Your task to perform on an android device: toggle show notifications on the lock screen Image 0: 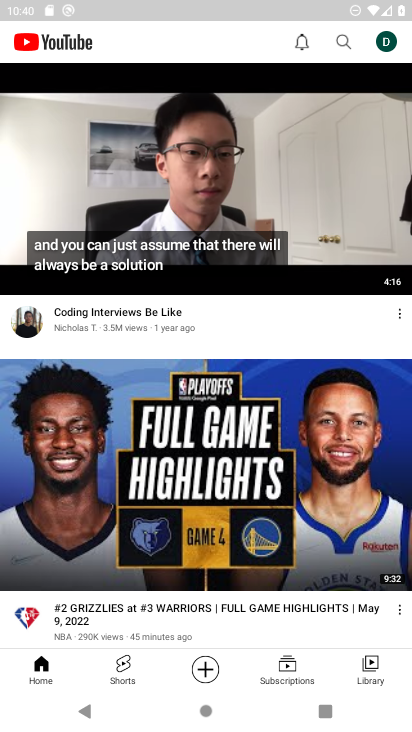
Step 0: press back button
Your task to perform on an android device: toggle show notifications on the lock screen Image 1: 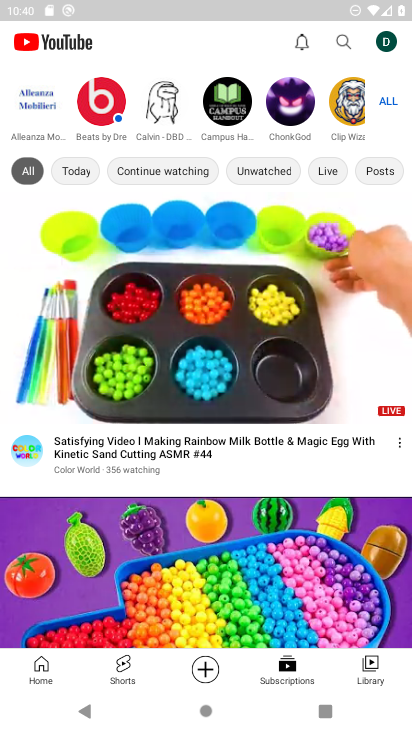
Step 1: press back button
Your task to perform on an android device: toggle show notifications on the lock screen Image 2: 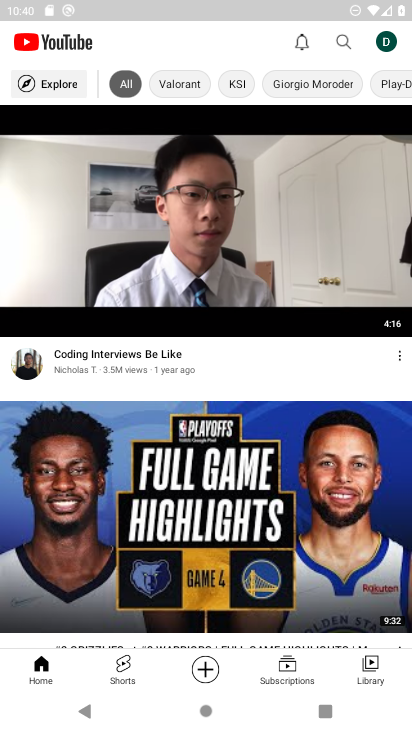
Step 2: click (210, 713)
Your task to perform on an android device: toggle show notifications on the lock screen Image 3: 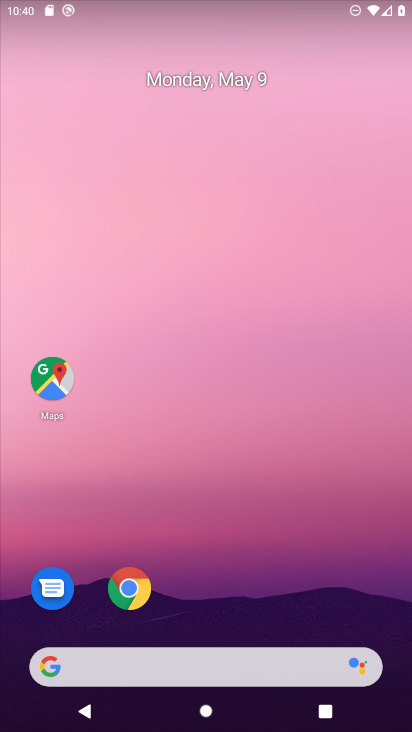
Step 3: drag from (262, 615) to (304, 199)
Your task to perform on an android device: toggle show notifications on the lock screen Image 4: 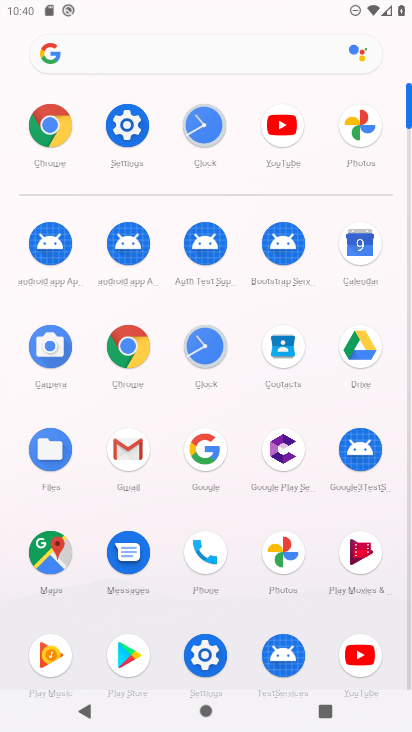
Step 4: click (135, 162)
Your task to perform on an android device: toggle show notifications on the lock screen Image 5: 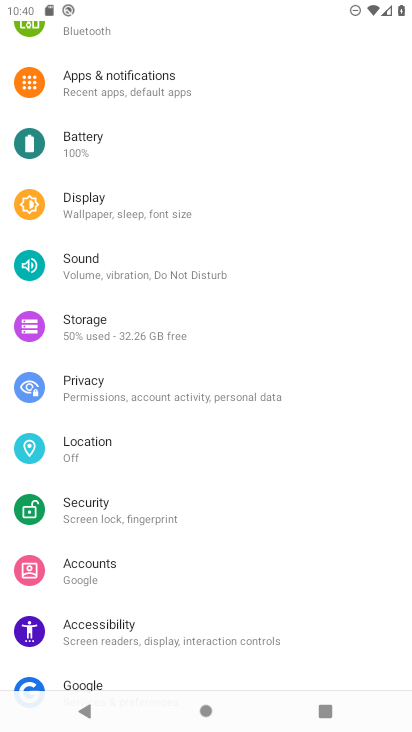
Step 5: drag from (180, 538) to (208, 274)
Your task to perform on an android device: toggle show notifications on the lock screen Image 6: 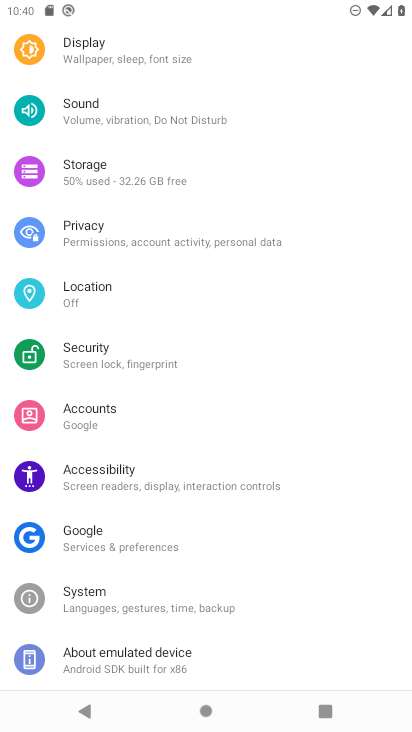
Step 6: drag from (191, 111) to (182, 635)
Your task to perform on an android device: toggle show notifications on the lock screen Image 7: 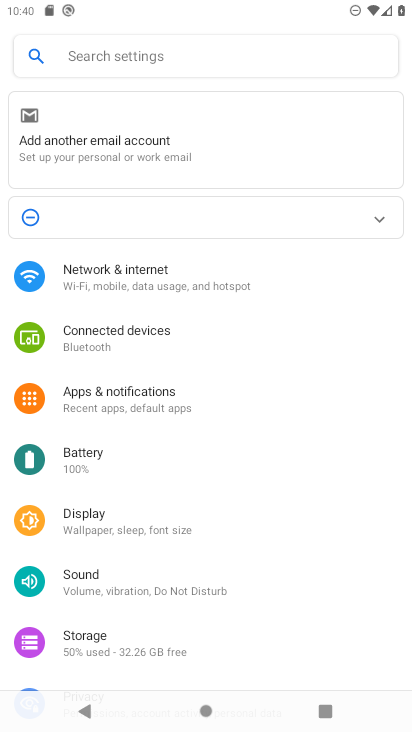
Step 7: click (187, 295)
Your task to perform on an android device: toggle show notifications on the lock screen Image 8: 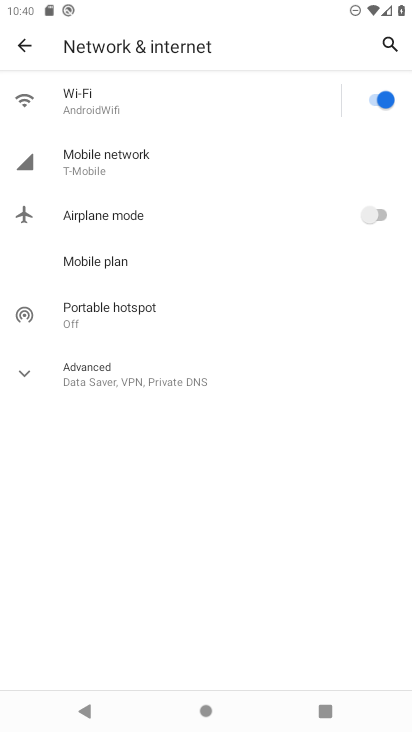
Step 8: click (33, 60)
Your task to perform on an android device: toggle show notifications on the lock screen Image 9: 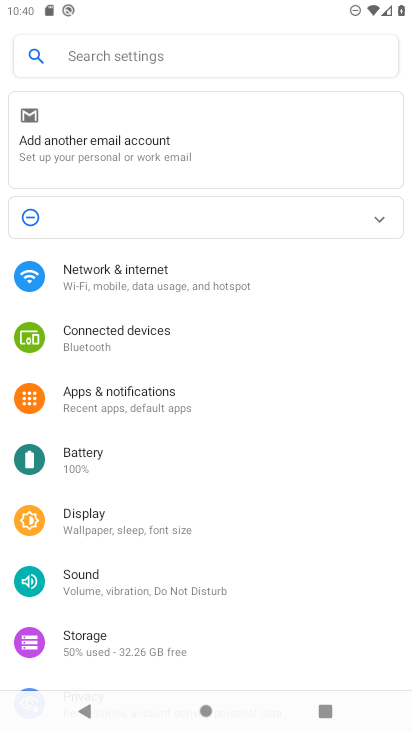
Step 9: click (143, 378)
Your task to perform on an android device: toggle show notifications on the lock screen Image 10: 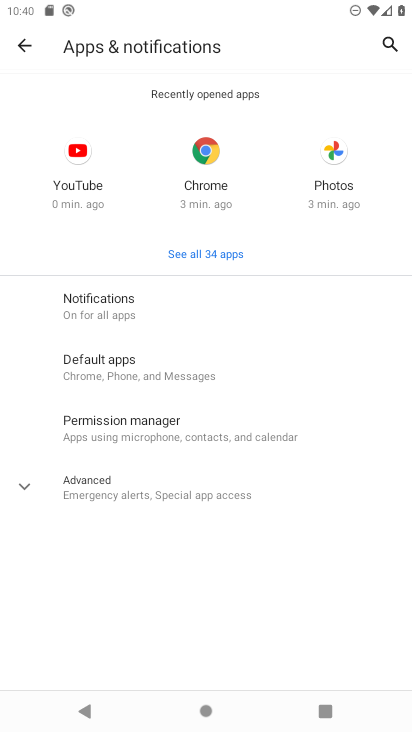
Step 10: click (138, 474)
Your task to perform on an android device: toggle show notifications on the lock screen Image 11: 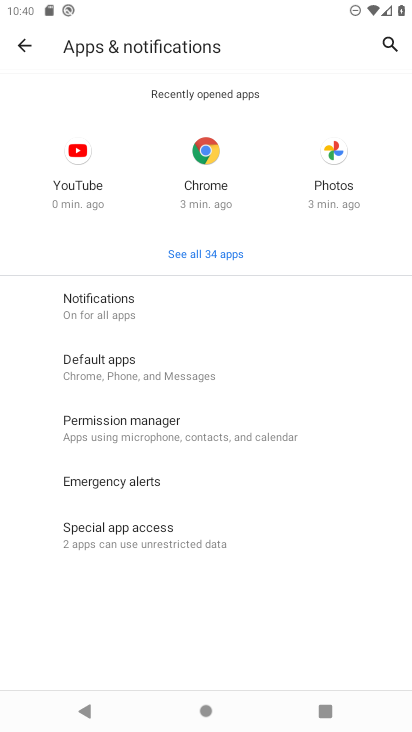
Step 11: click (122, 307)
Your task to perform on an android device: toggle show notifications on the lock screen Image 12: 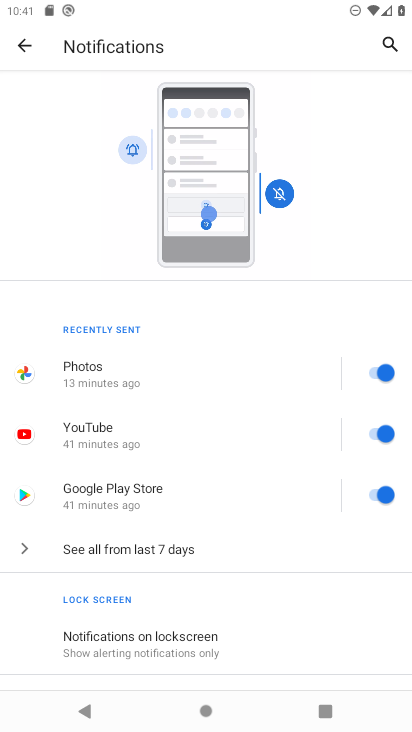
Step 12: click (151, 647)
Your task to perform on an android device: toggle show notifications on the lock screen Image 13: 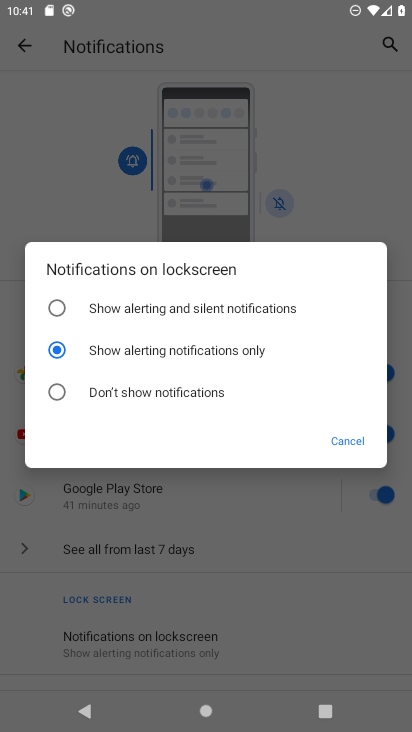
Step 13: task complete